Your task to perform on an android device: Go to location settings Image 0: 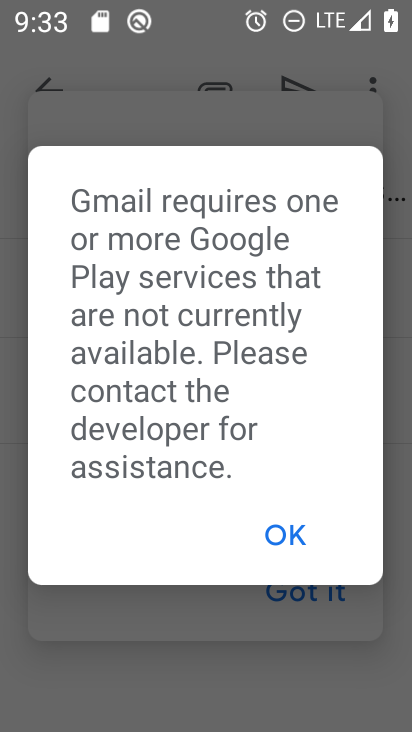
Step 0: press home button
Your task to perform on an android device: Go to location settings Image 1: 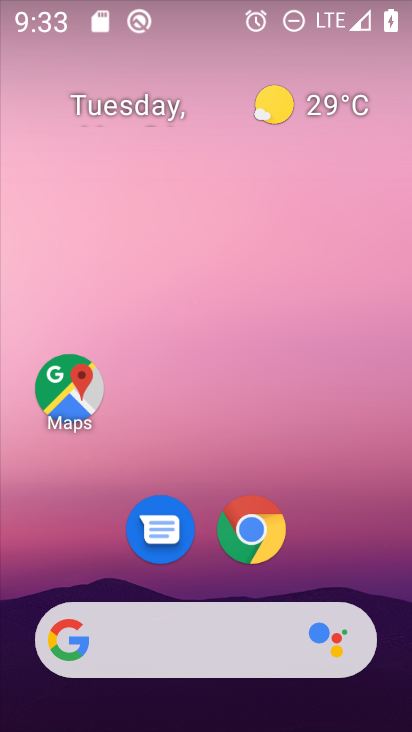
Step 1: drag from (392, 632) to (294, 131)
Your task to perform on an android device: Go to location settings Image 2: 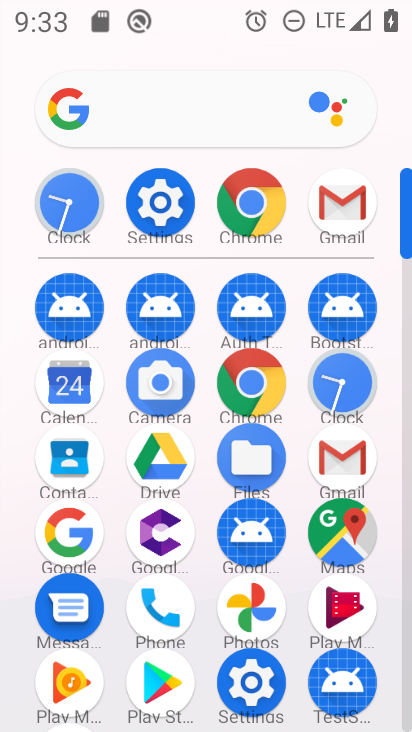
Step 2: click (262, 663)
Your task to perform on an android device: Go to location settings Image 3: 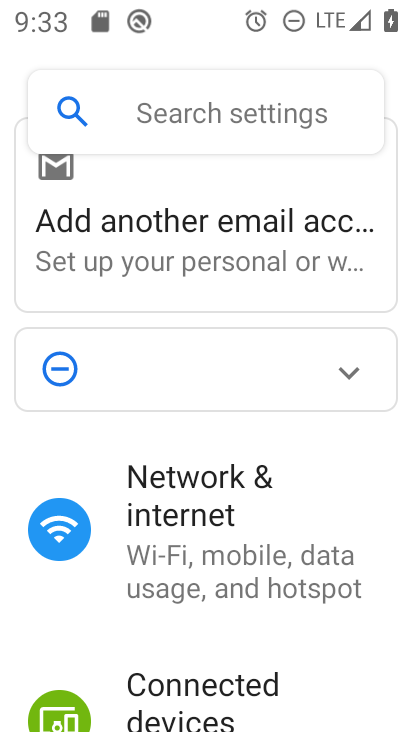
Step 3: drag from (198, 684) to (257, 202)
Your task to perform on an android device: Go to location settings Image 4: 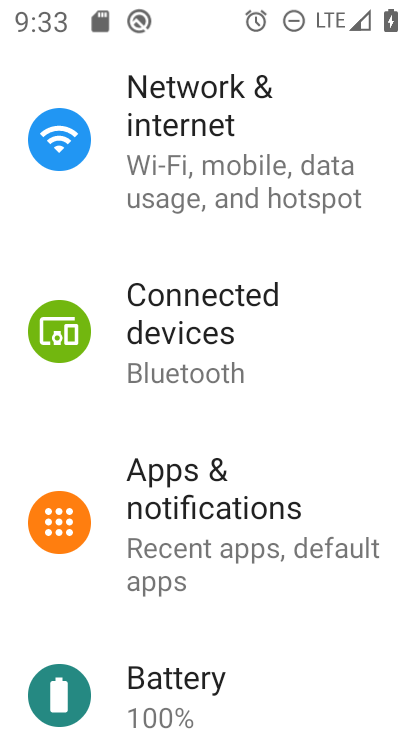
Step 4: drag from (177, 616) to (244, 105)
Your task to perform on an android device: Go to location settings Image 5: 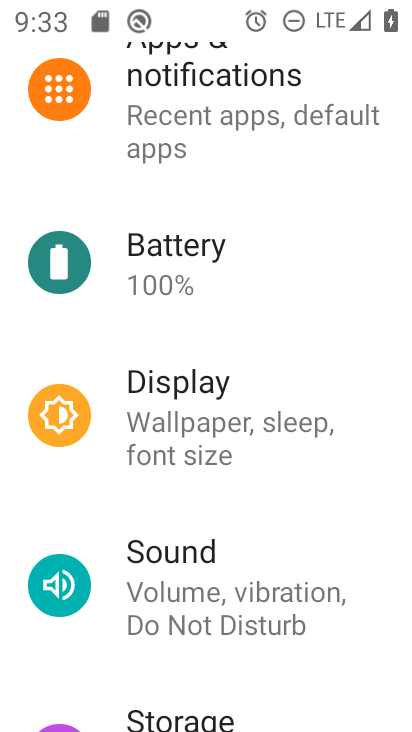
Step 5: drag from (201, 653) to (231, 156)
Your task to perform on an android device: Go to location settings Image 6: 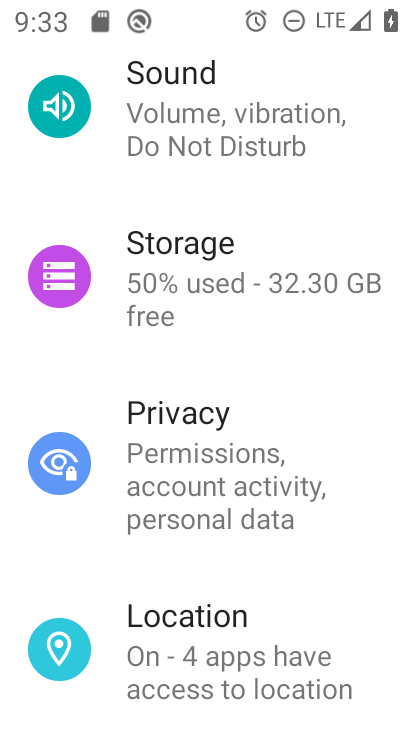
Step 6: click (213, 624)
Your task to perform on an android device: Go to location settings Image 7: 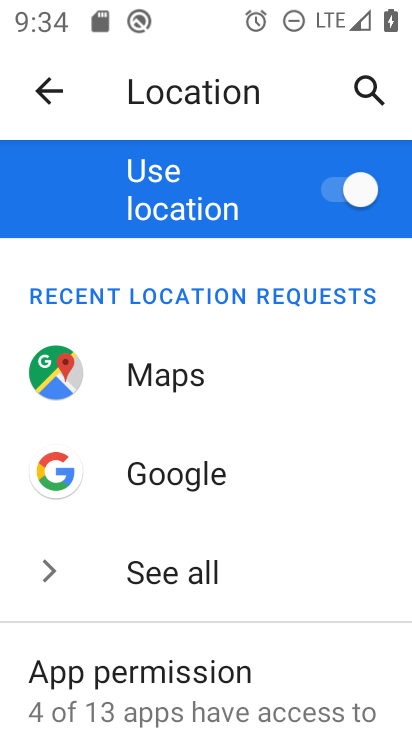
Step 7: task complete